Your task to perform on an android device: Open settings Image 0: 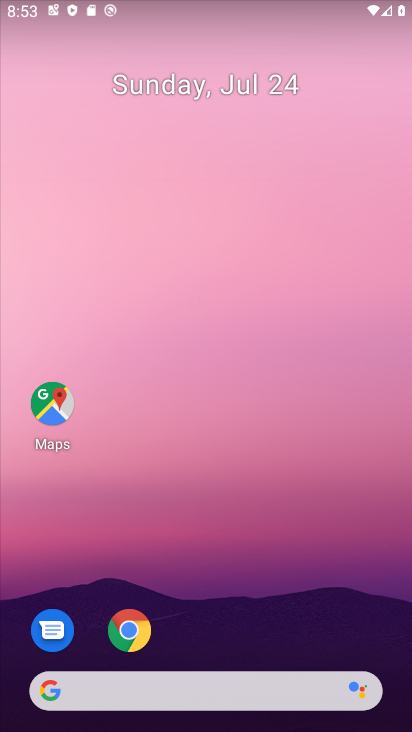
Step 0: drag from (223, 569) to (198, 14)
Your task to perform on an android device: Open settings Image 1: 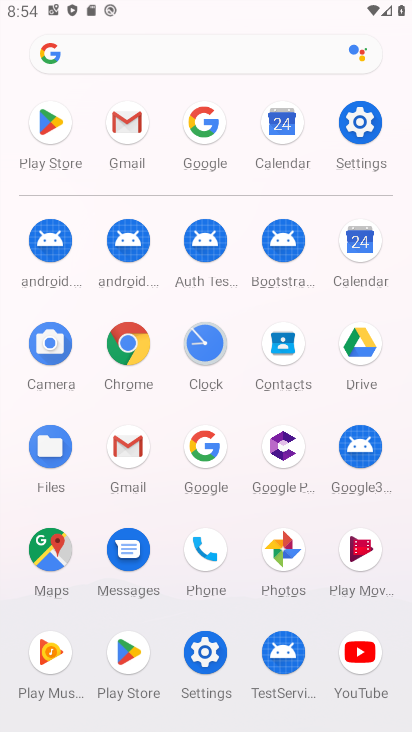
Step 1: click (358, 141)
Your task to perform on an android device: Open settings Image 2: 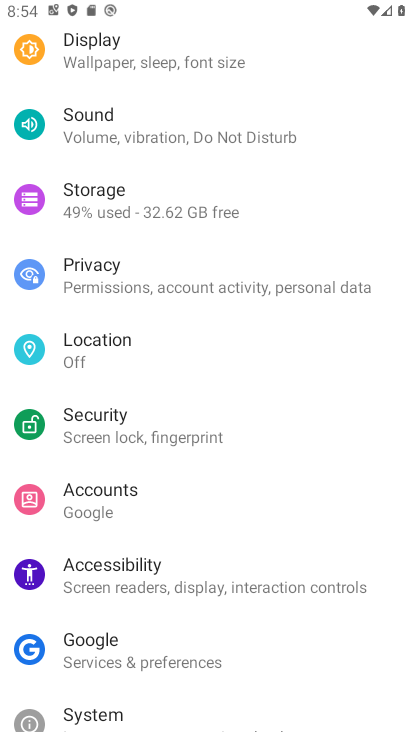
Step 2: task complete